Your task to perform on an android device: open a bookmark in the chrome app Image 0: 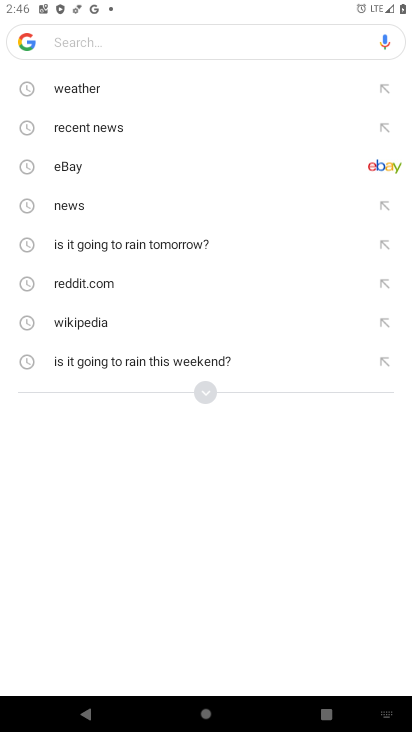
Step 0: press home button
Your task to perform on an android device: open a bookmark in the chrome app Image 1: 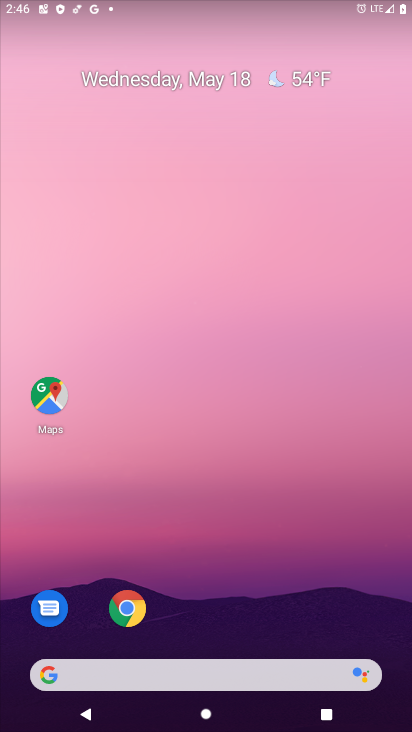
Step 1: click (122, 611)
Your task to perform on an android device: open a bookmark in the chrome app Image 2: 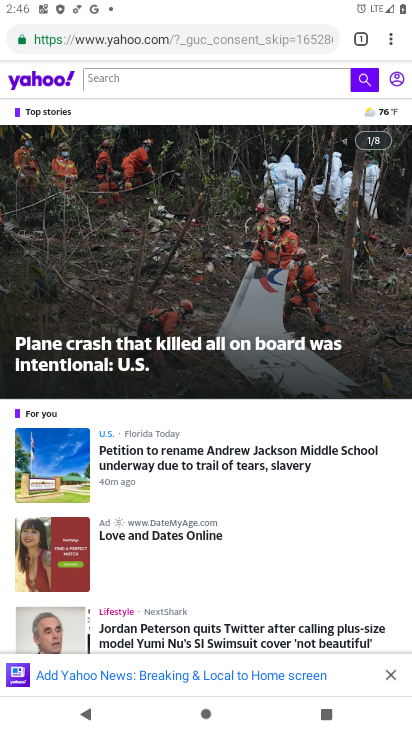
Step 2: click (391, 44)
Your task to perform on an android device: open a bookmark in the chrome app Image 3: 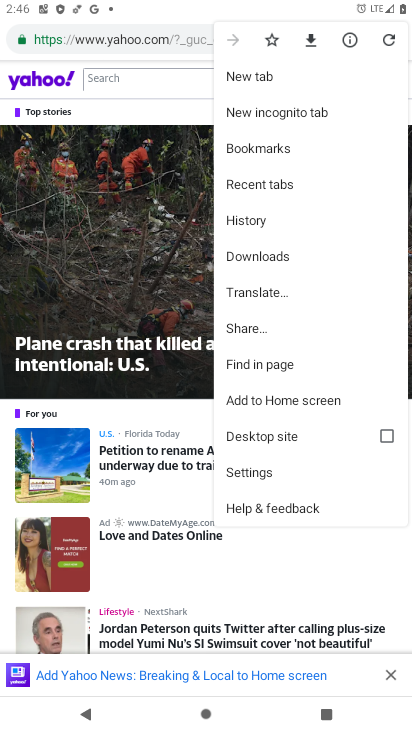
Step 3: click (247, 157)
Your task to perform on an android device: open a bookmark in the chrome app Image 4: 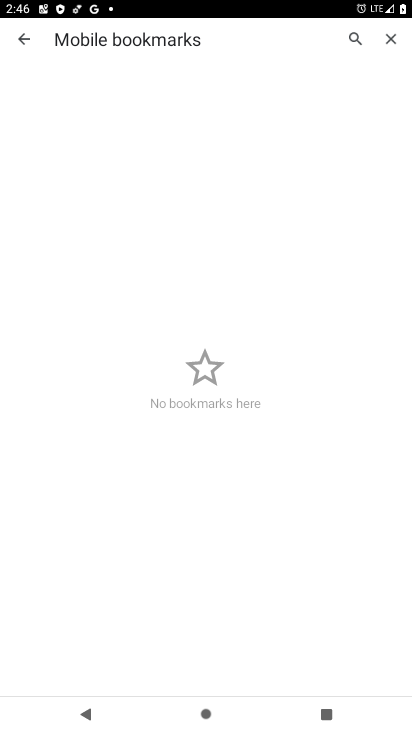
Step 4: task complete